Your task to perform on an android device: change the clock display to digital Image 0: 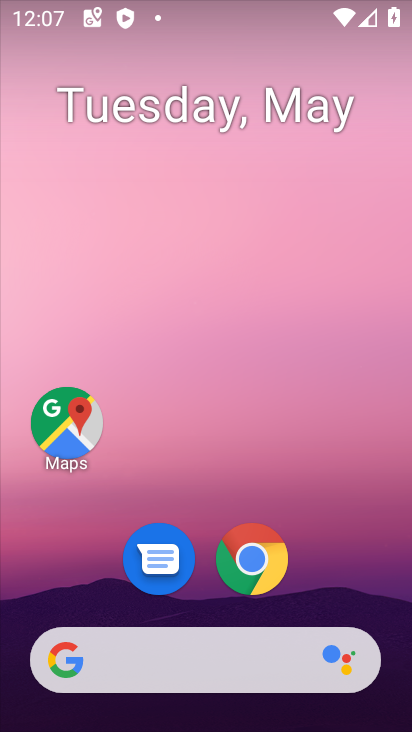
Step 0: drag from (349, 565) to (330, 52)
Your task to perform on an android device: change the clock display to digital Image 1: 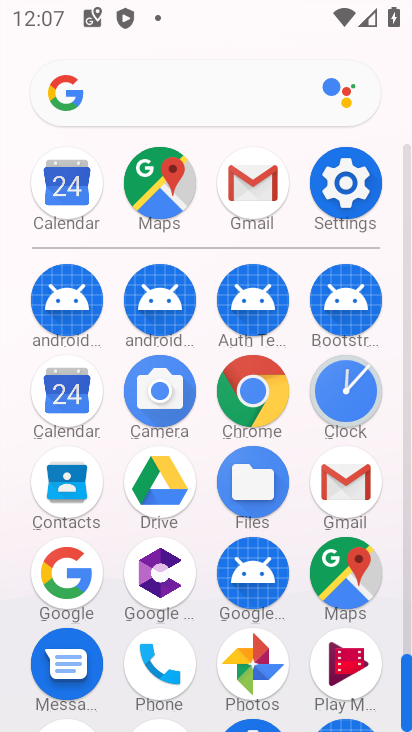
Step 1: click (352, 177)
Your task to perform on an android device: change the clock display to digital Image 2: 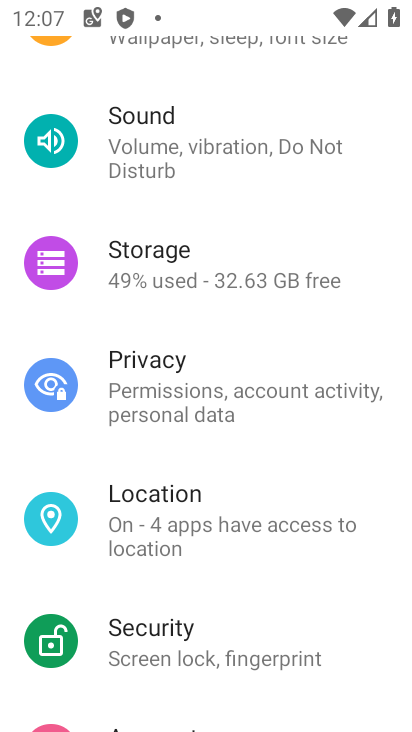
Step 2: drag from (283, 209) to (300, 391)
Your task to perform on an android device: change the clock display to digital Image 3: 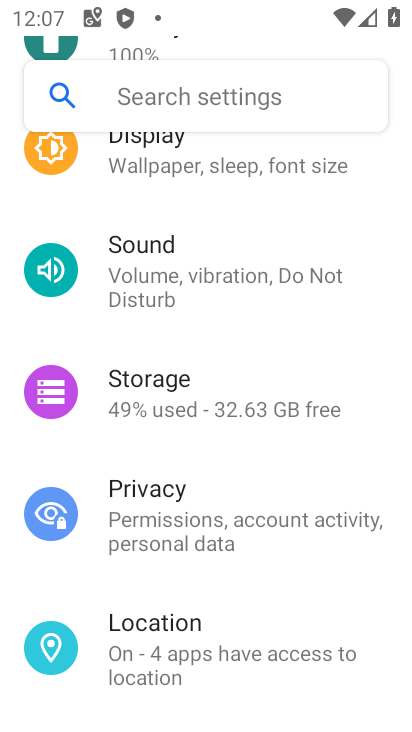
Step 3: press home button
Your task to perform on an android device: change the clock display to digital Image 4: 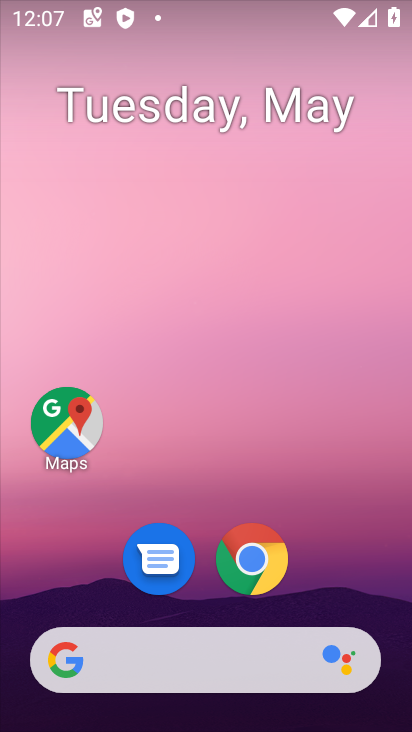
Step 4: drag from (363, 531) to (376, 39)
Your task to perform on an android device: change the clock display to digital Image 5: 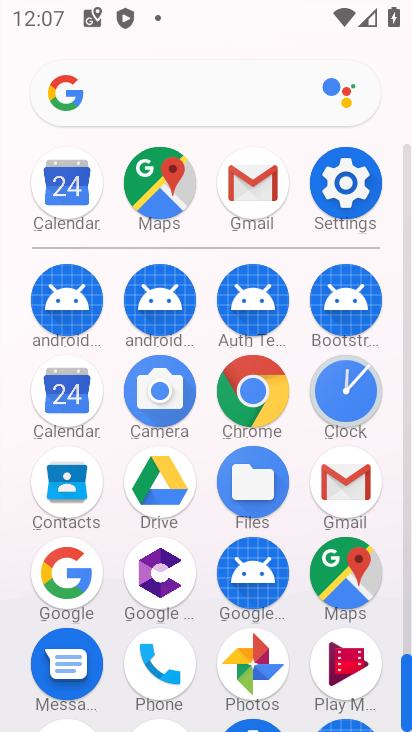
Step 5: click (333, 408)
Your task to perform on an android device: change the clock display to digital Image 6: 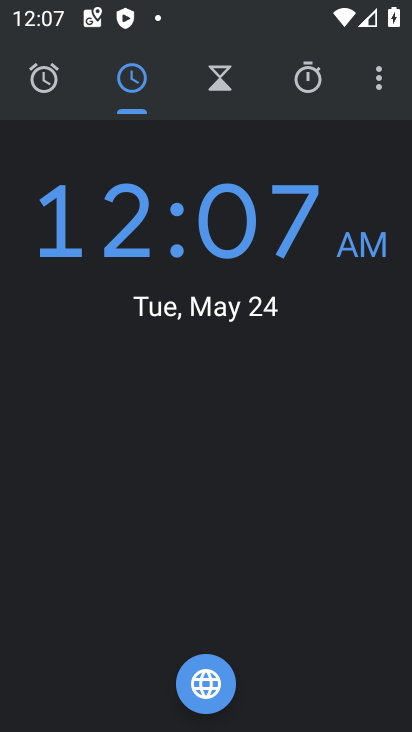
Step 6: click (374, 76)
Your task to perform on an android device: change the clock display to digital Image 7: 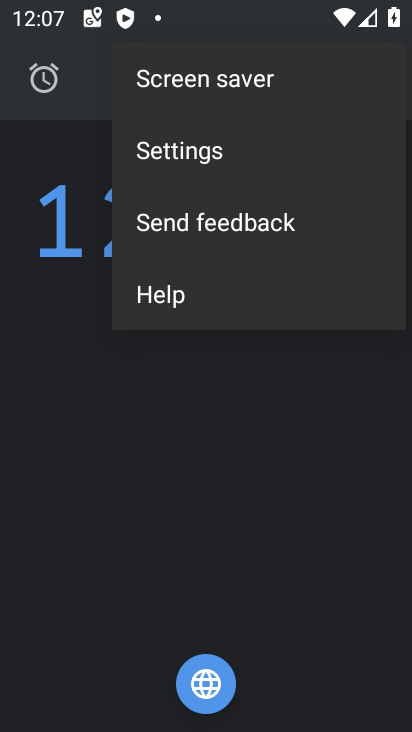
Step 7: click (214, 151)
Your task to perform on an android device: change the clock display to digital Image 8: 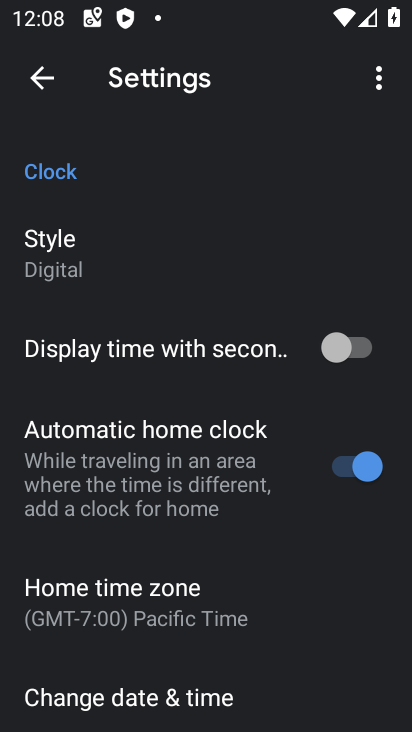
Step 8: click (224, 272)
Your task to perform on an android device: change the clock display to digital Image 9: 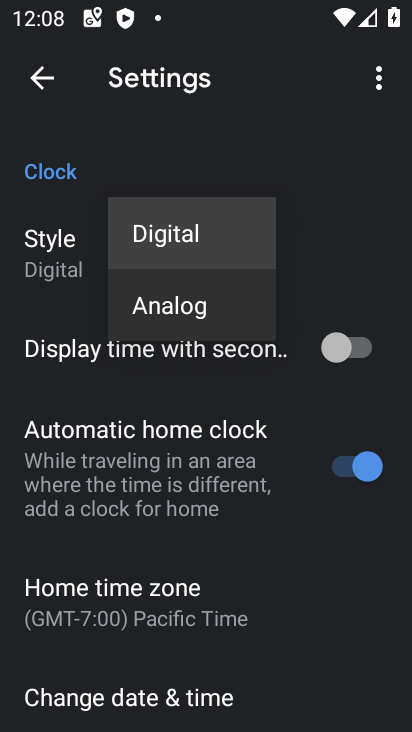
Step 9: click (224, 272)
Your task to perform on an android device: change the clock display to digital Image 10: 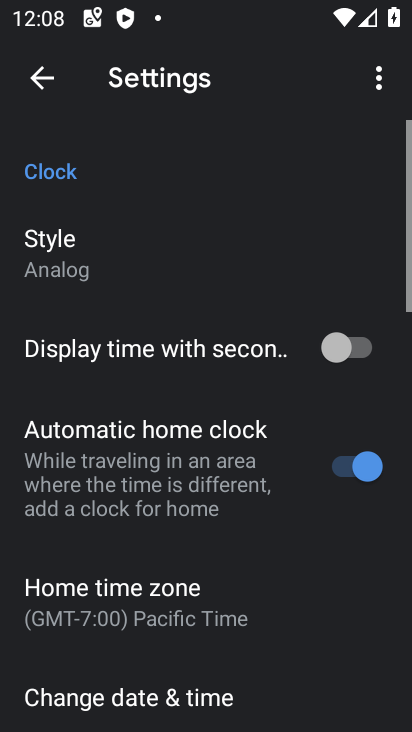
Step 10: click (231, 255)
Your task to perform on an android device: change the clock display to digital Image 11: 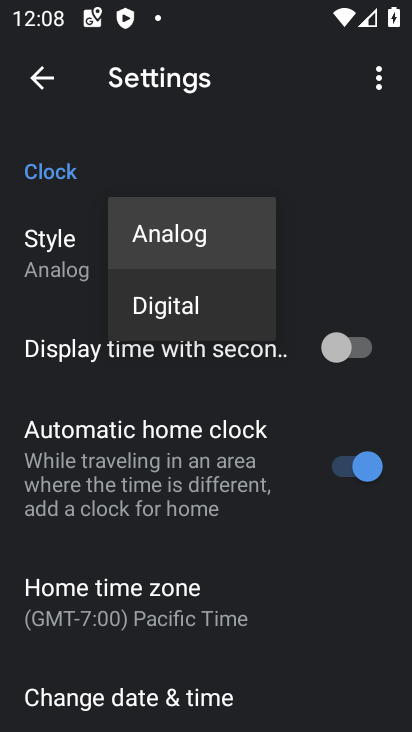
Step 11: task complete